Your task to perform on an android device: Go to internet settings Image 0: 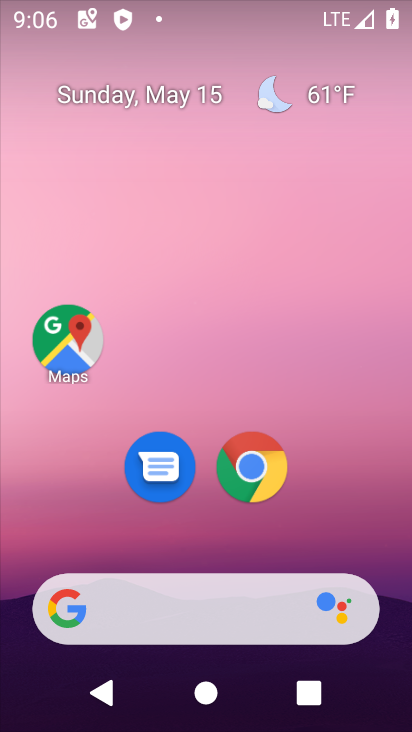
Step 0: drag from (205, 6) to (260, 473)
Your task to perform on an android device: Go to internet settings Image 1: 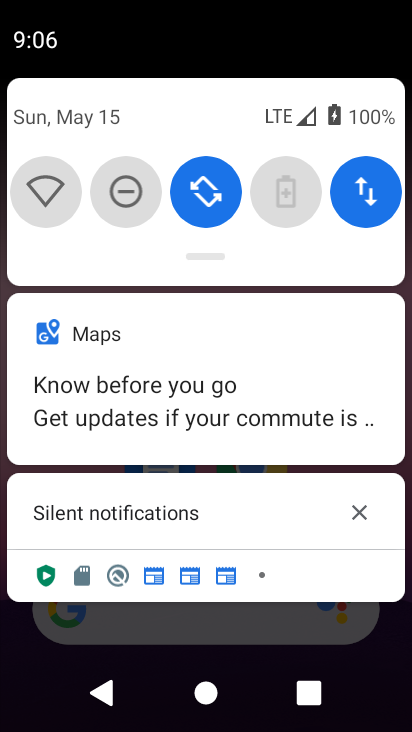
Step 1: click (377, 191)
Your task to perform on an android device: Go to internet settings Image 2: 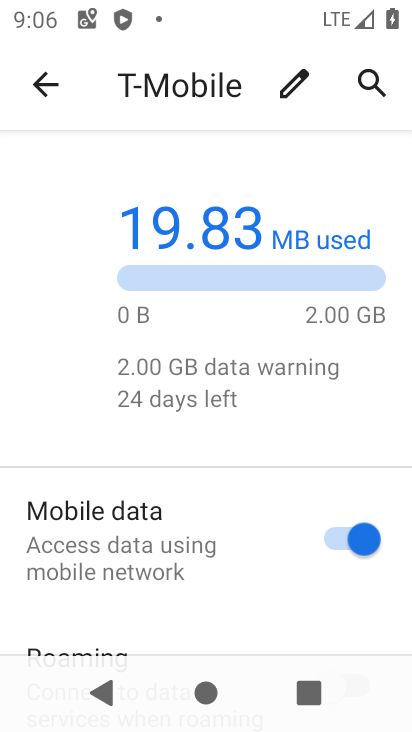
Step 2: task complete